Your task to perform on an android device: Open Google Chrome and click the shortcut for Amazon.com Image 0: 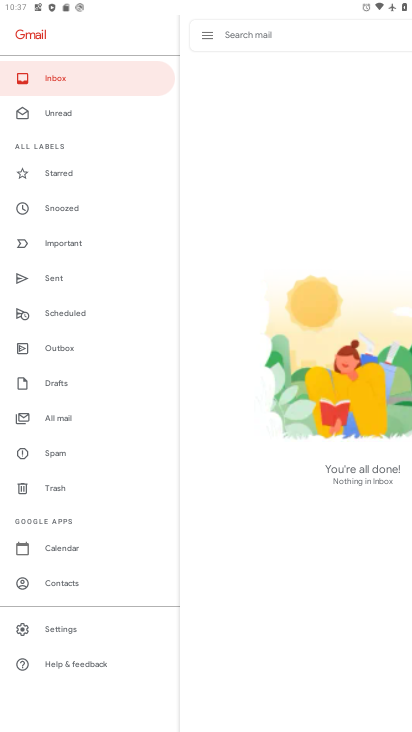
Step 0: press home button
Your task to perform on an android device: Open Google Chrome and click the shortcut for Amazon.com Image 1: 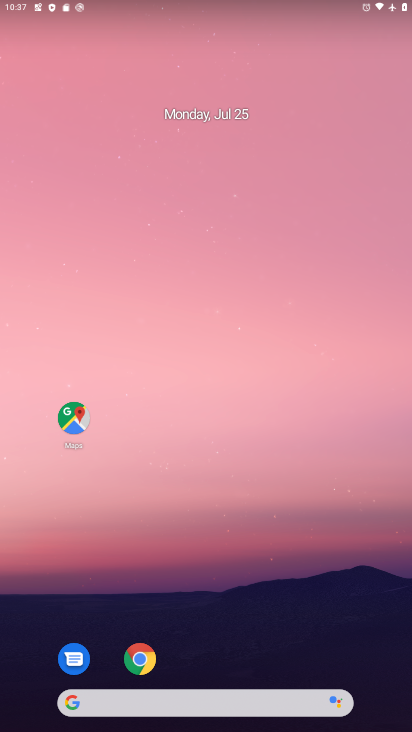
Step 1: click (146, 651)
Your task to perform on an android device: Open Google Chrome and click the shortcut for Amazon.com Image 2: 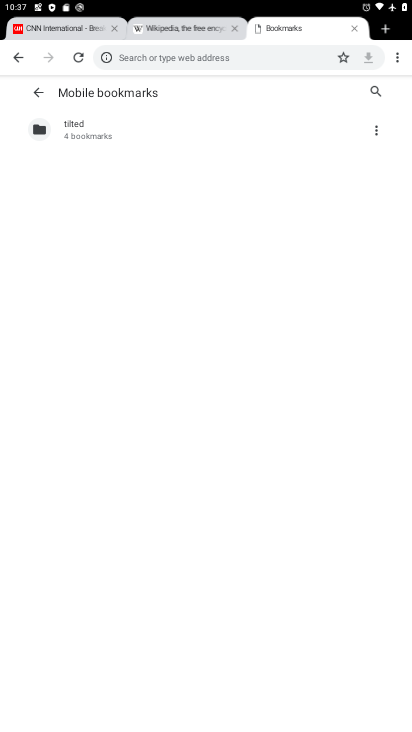
Step 2: click (382, 29)
Your task to perform on an android device: Open Google Chrome and click the shortcut for Amazon.com Image 3: 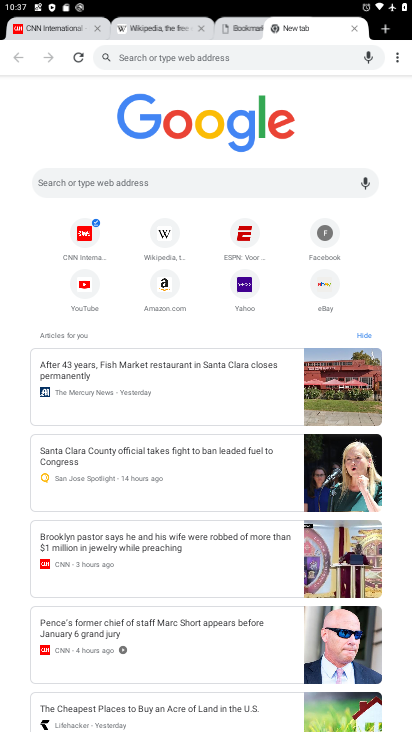
Step 3: click (162, 286)
Your task to perform on an android device: Open Google Chrome and click the shortcut for Amazon.com Image 4: 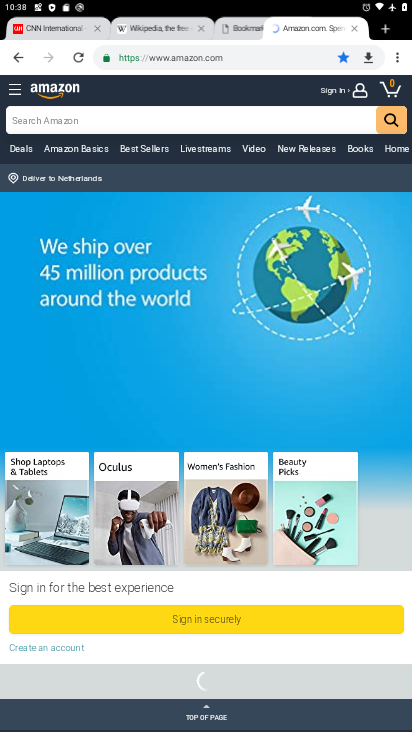
Step 4: task complete